Your task to perform on an android device: Search for the ikea sjalv lamp Image 0: 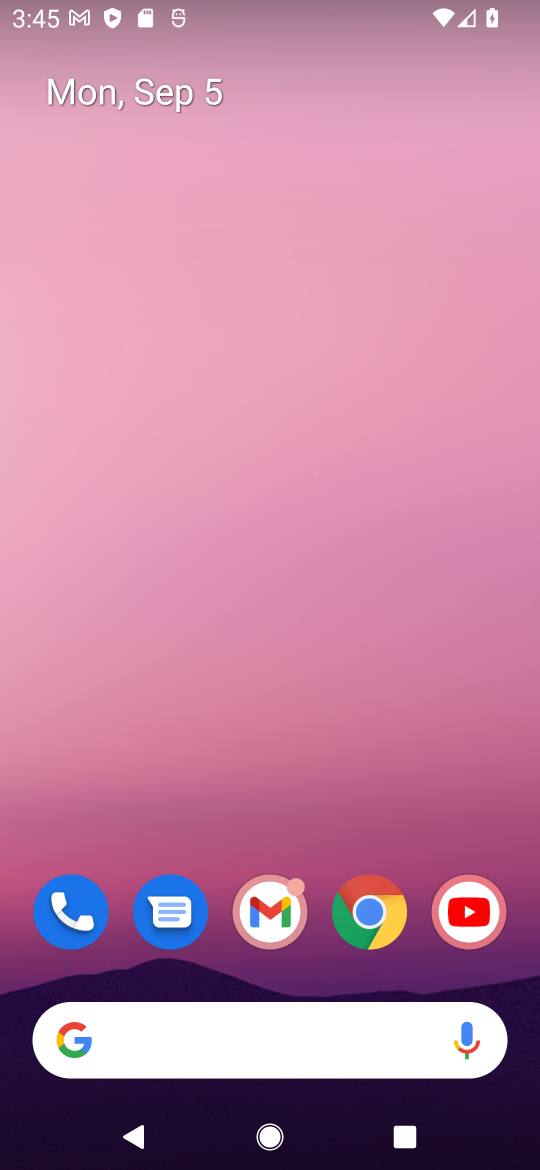
Step 0: click (363, 934)
Your task to perform on an android device: Search for the ikea sjalv lamp Image 1: 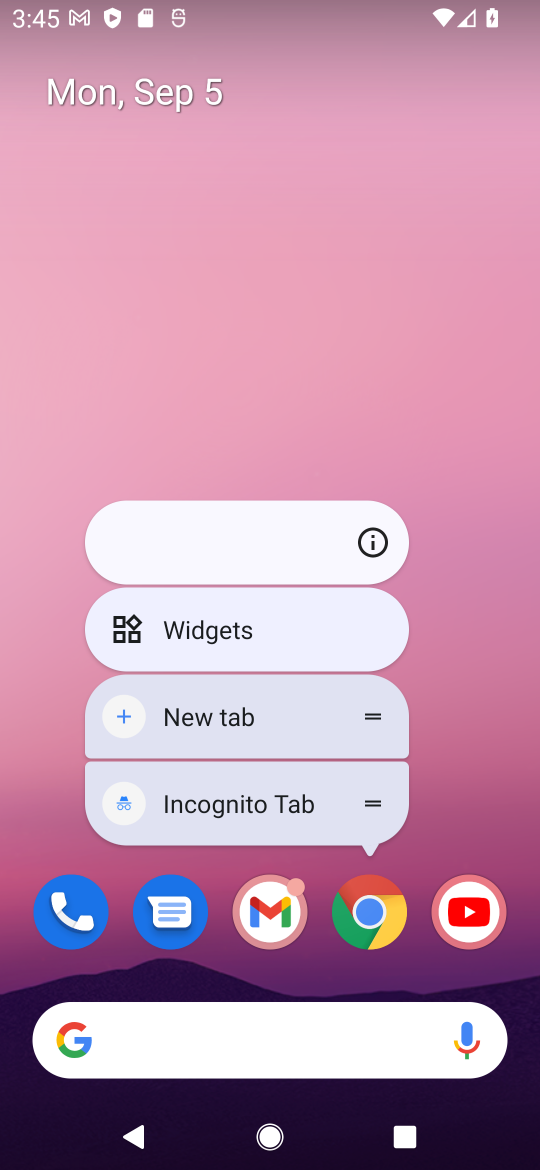
Step 1: click (361, 909)
Your task to perform on an android device: Search for the ikea sjalv lamp Image 2: 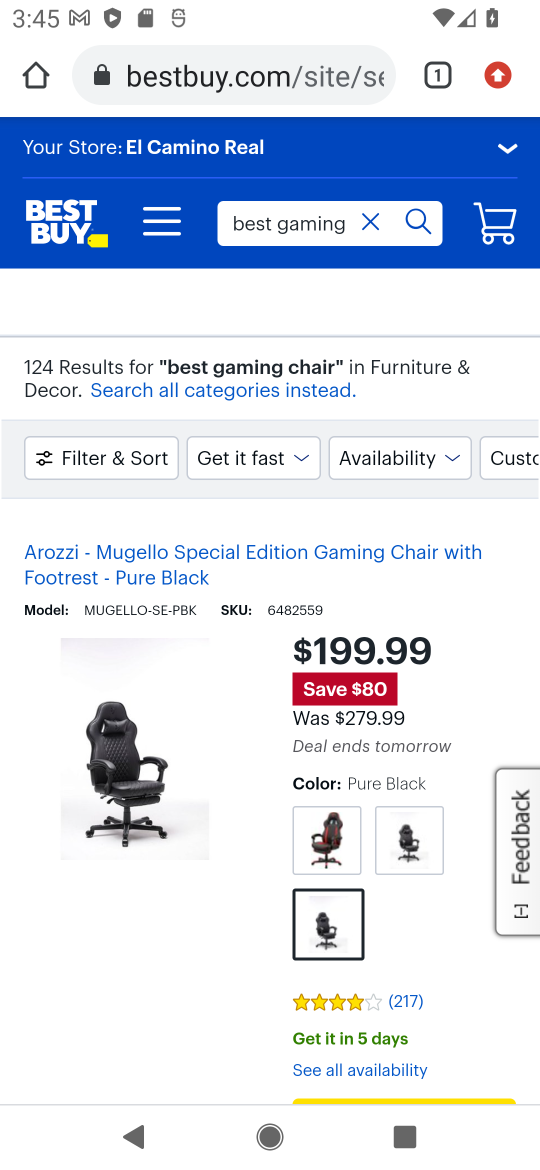
Step 2: click (249, 80)
Your task to perform on an android device: Search for the ikea sjalv lamp Image 3: 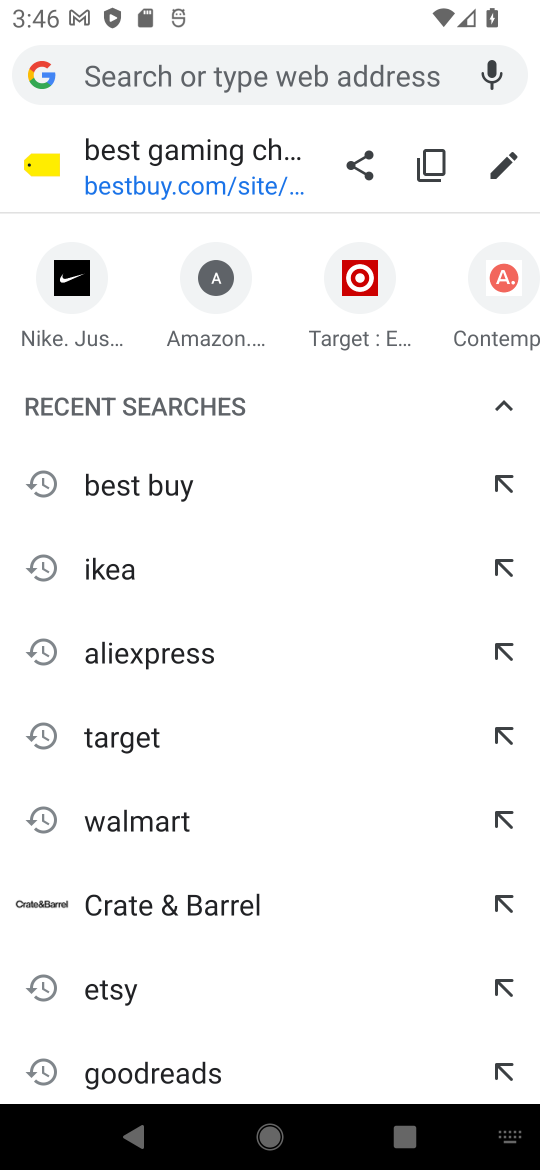
Step 3: type "ikea sjalv lamp"
Your task to perform on an android device: Search for the ikea sjalv lamp Image 4: 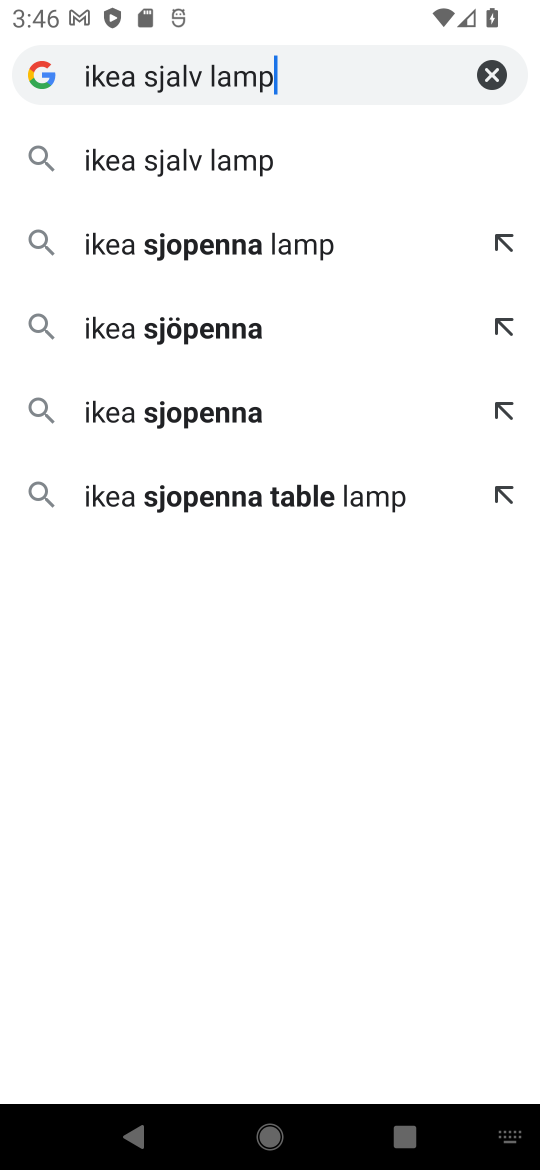
Step 4: press enter
Your task to perform on an android device: Search for the ikea sjalv lamp Image 5: 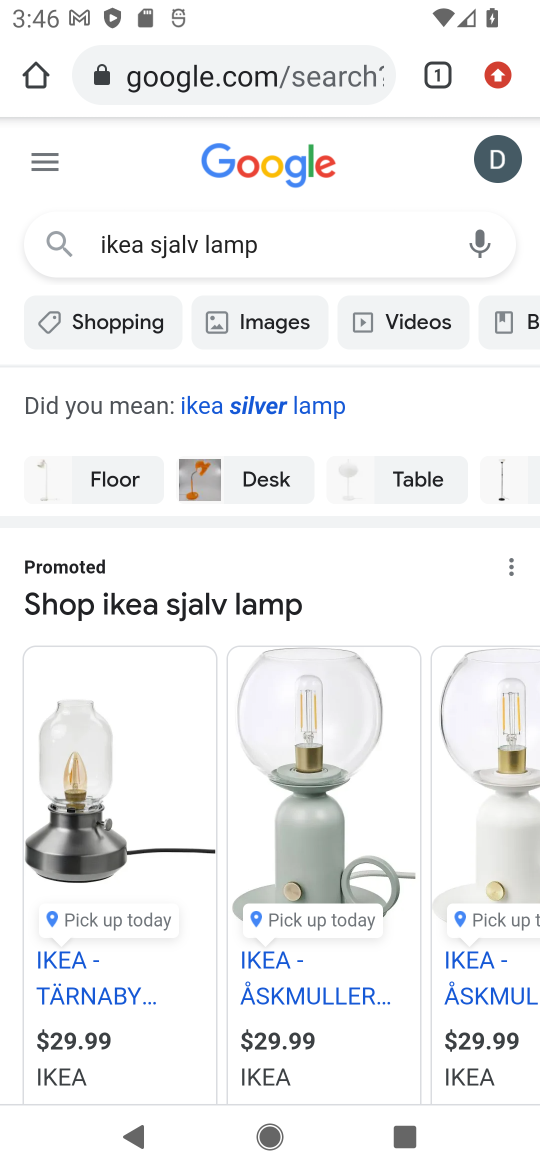
Step 5: task complete